Your task to perform on an android device: delete a single message in the gmail app Image 0: 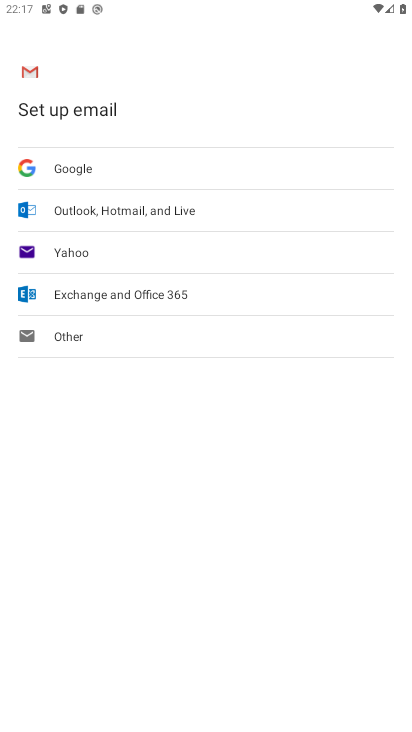
Step 0: press home button
Your task to perform on an android device: delete a single message in the gmail app Image 1: 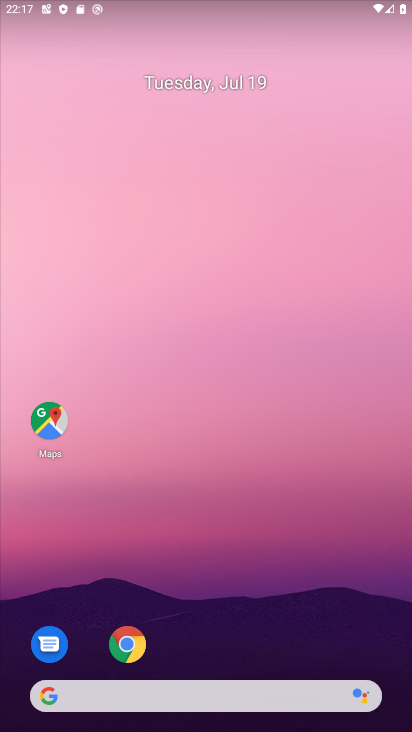
Step 1: drag from (228, 722) to (230, 380)
Your task to perform on an android device: delete a single message in the gmail app Image 2: 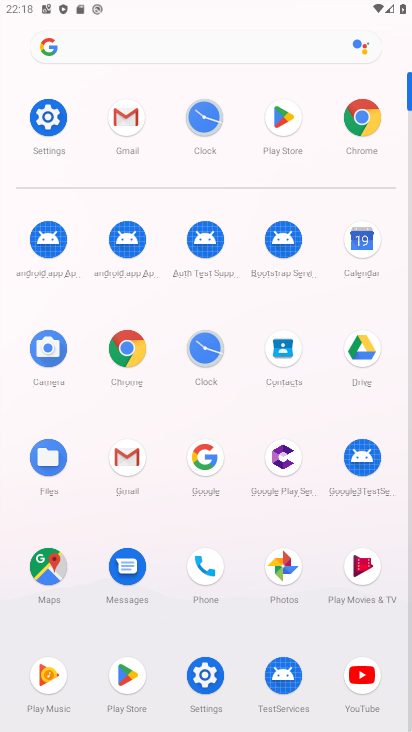
Step 2: click (130, 461)
Your task to perform on an android device: delete a single message in the gmail app Image 3: 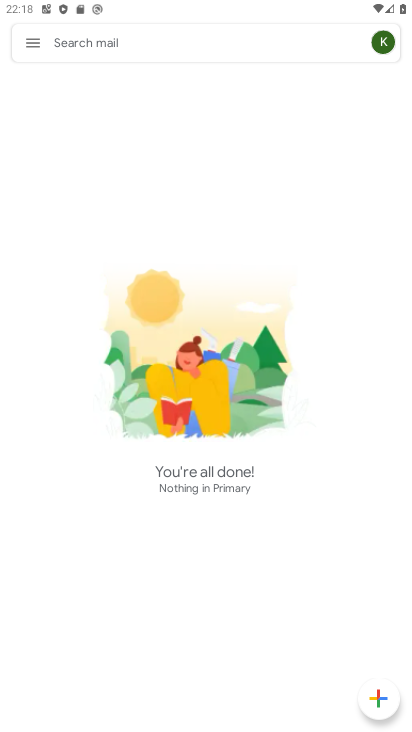
Step 3: task complete